Your task to perform on an android device: Go to privacy settings Image 0: 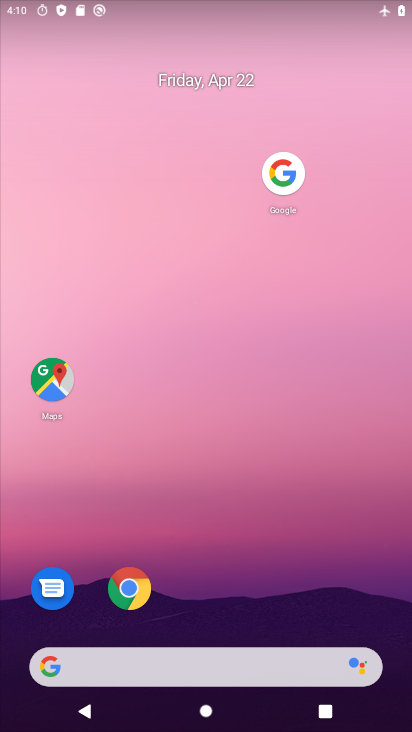
Step 0: drag from (204, 637) to (38, 0)
Your task to perform on an android device: Go to privacy settings Image 1: 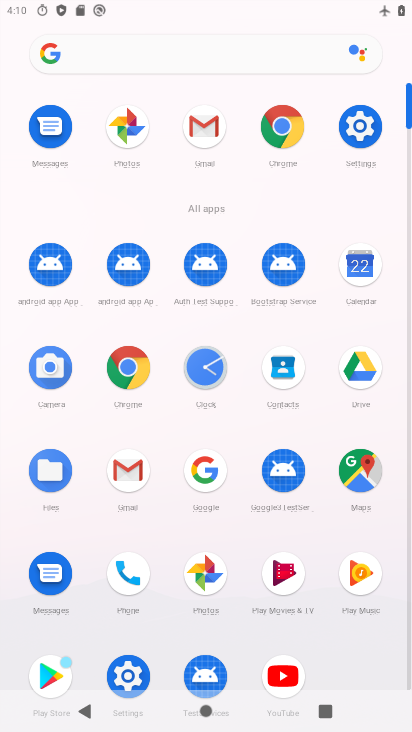
Step 1: click (354, 134)
Your task to perform on an android device: Go to privacy settings Image 2: 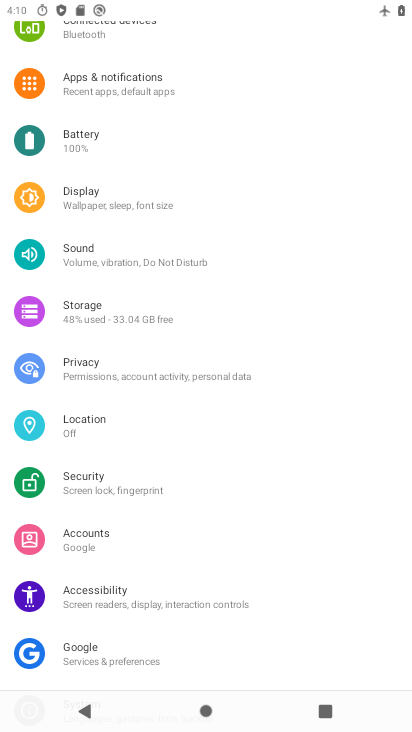
Step 2: click (169, 377)
Your task to perform on an android device: Go to privacy settings Image 3: 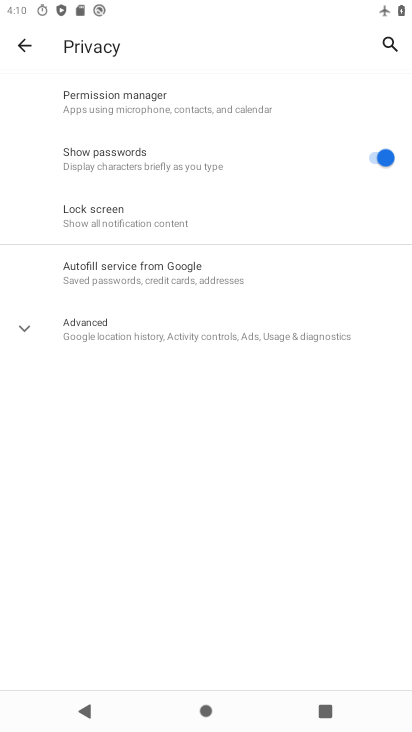
Step 3: task complete